Your task to perform on an android device: set an alarm Image 0: 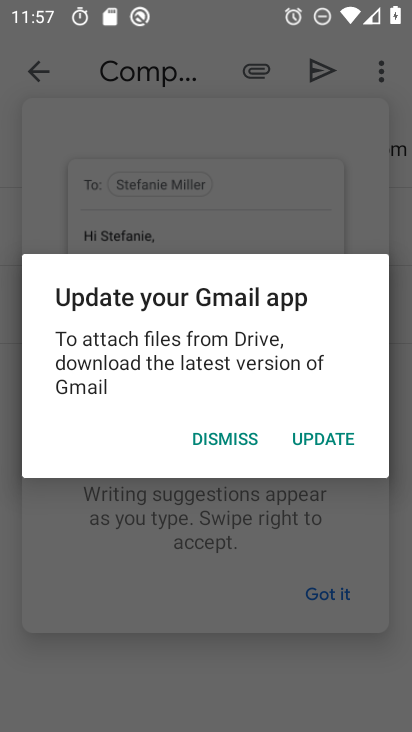
Step 0: press home button
Your task to perform on an android device: set an alarm Image 1: 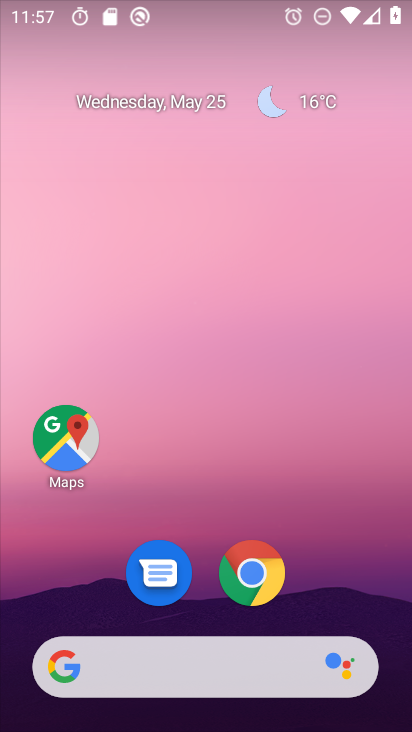
Step 1: drag from (355, 602) to (313, 2)
Your task to perform on an android device: set an alarm Image 2: 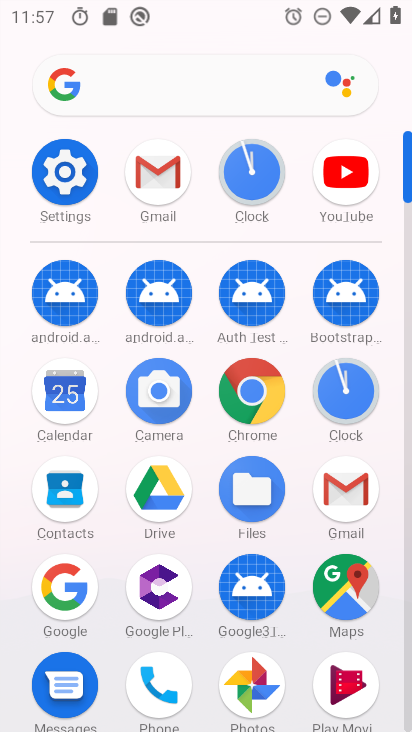
Step 2: click (253, 184)
Your task to perform on an android device: set an alarm Image 3: 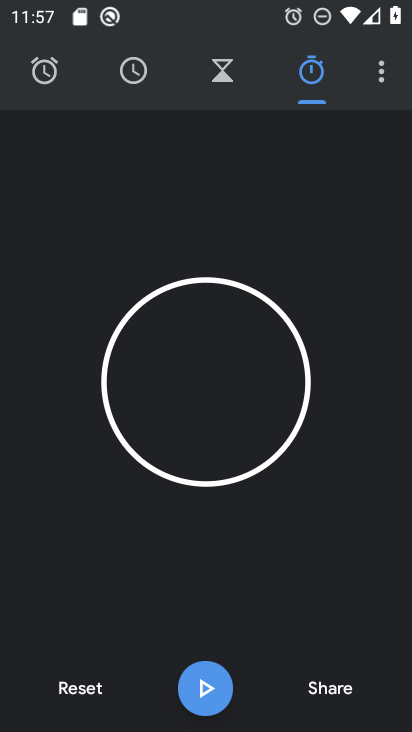
Step 3: click (51, 74)
Your task to perform on an android device: set an alarm Image 4: 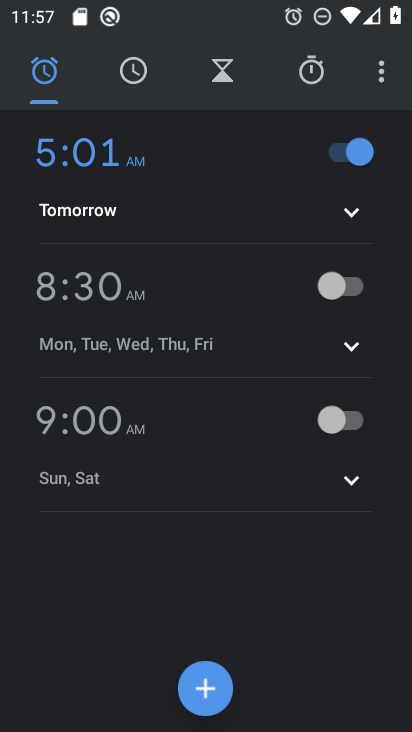
Step 4: click (206, 688)
Your task to perform on an android device: set an alarm Image 5: 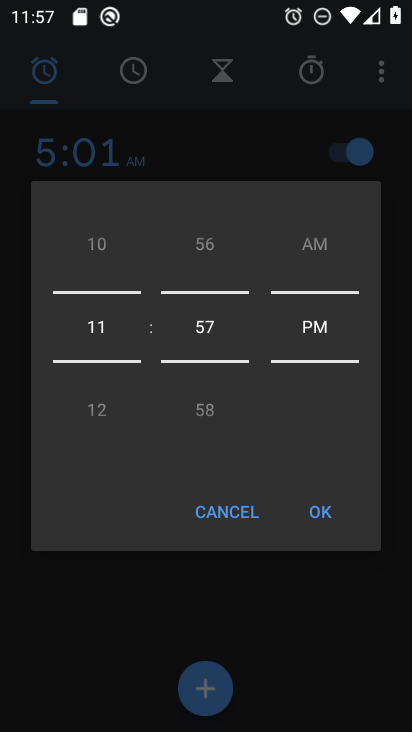
Step 5: drag from (108, 326) to (105, 729)
Your task to perform on an android device: set an alarm Image 6: 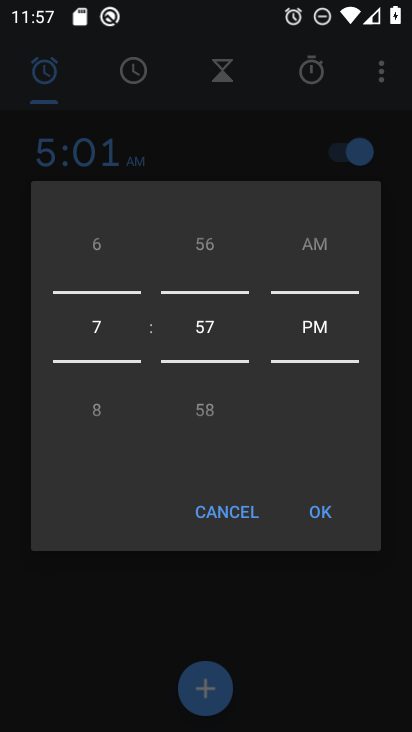
Step 6: drag from (212, 332) to (199, 460)
Your task to perform on an android device: set an alarm Image 7: 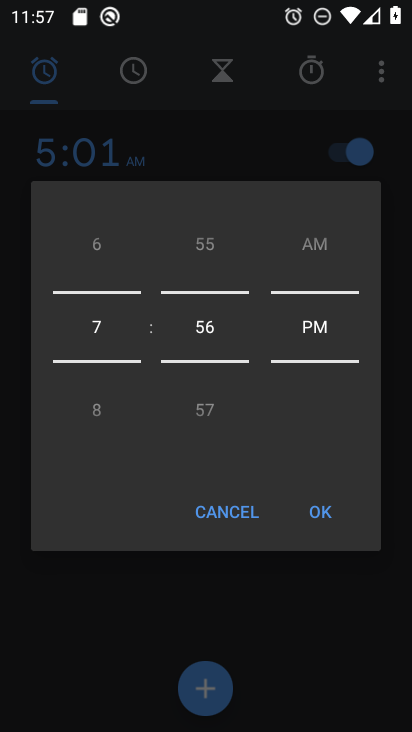
Step 7: drag from (211, 332) to (202, 459)
Your task to perform on an android device: set an alarm Image 8: 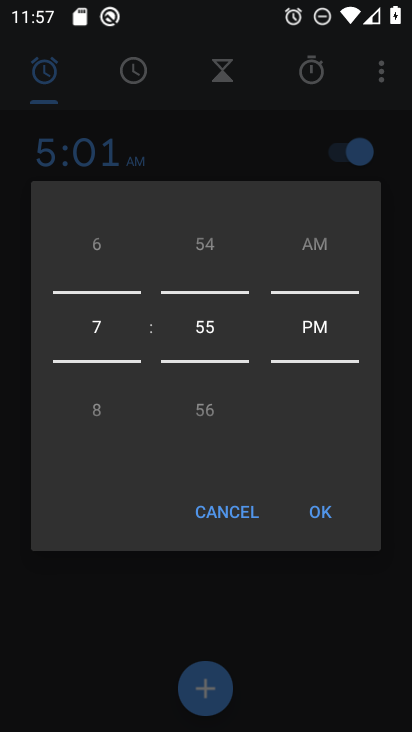
Step 8: click (323, 514)
Your task to perform on an android device: set an alarm Image 9: 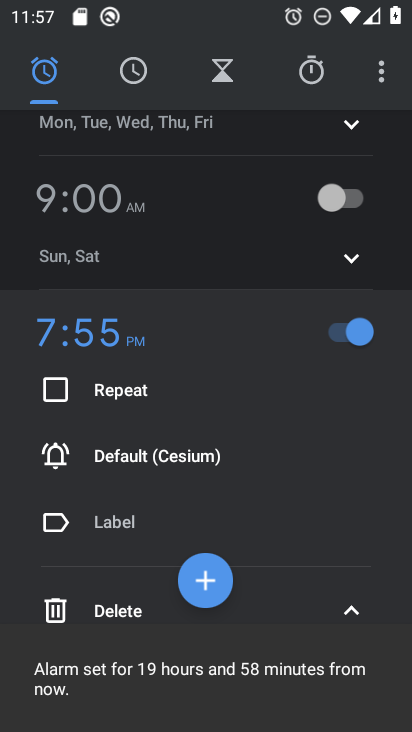
Step 9: task complete